Your task to perform on an android device: Open calendar and show me the fourth week of next month Image 0: 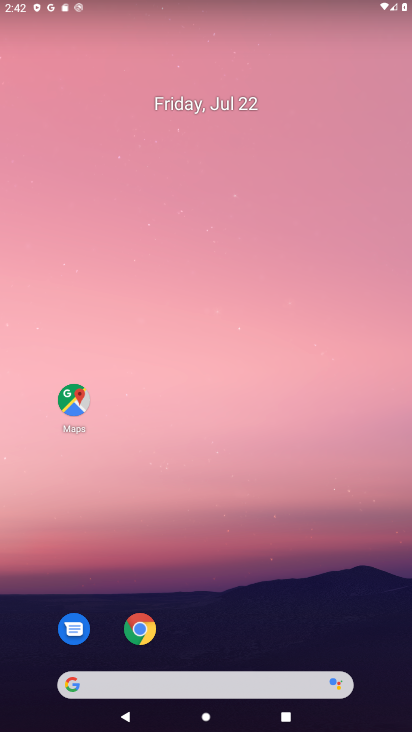
Step 0: drag from (220, 580) to (198, 145)
Your task to perform on an android device: Open calendar and show me the fourth week of next month Image 1: 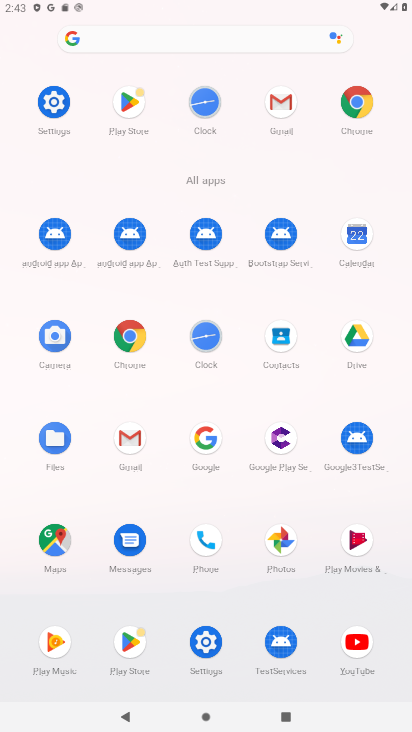
Step 1: click (351, 236)
Your task to perform on an android device: Open calendar and show me the fourth week of next month Image 2: 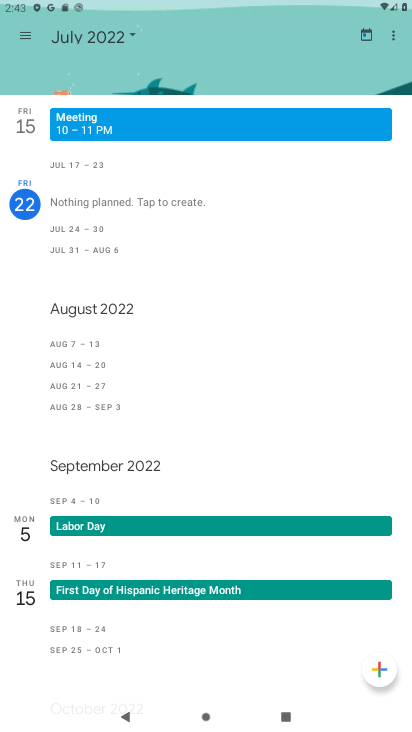
Step 2: click (22, 20)
Your task to perform on an android device: Open calendar and show me the fourth week of next month Image 3: 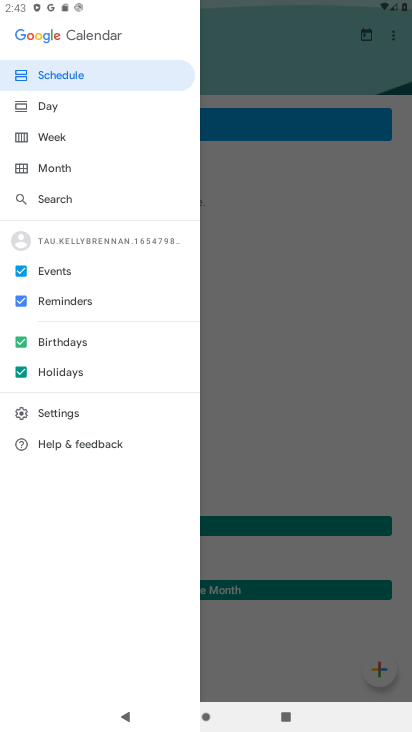
Step 3: click (61, 128)
Your task to perform on an android device: Open calendar and show me the fourth week of next month Image 4: 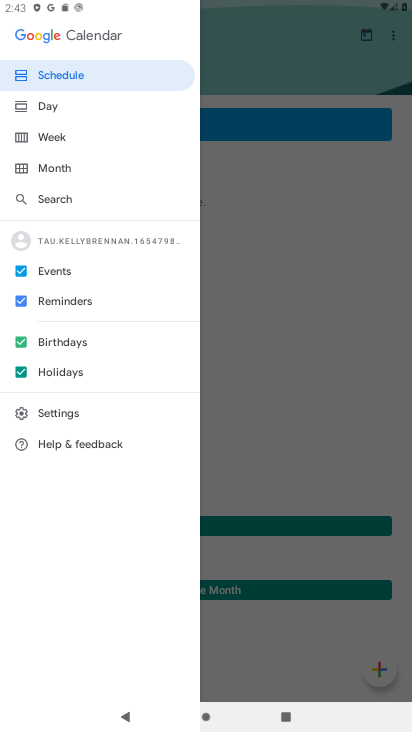
Step 4: click (47, 132)
Your task to perform on an android device: Open calendar and show me the fourth week of next month Image 5: 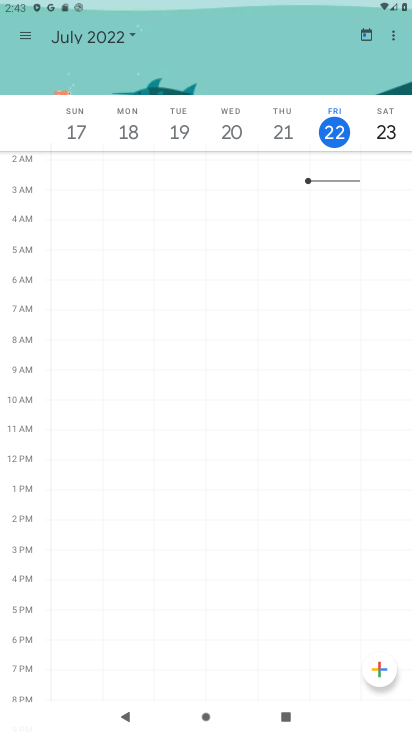
Step 5: click (122, 33)
Your task to perform on an android device: Open calendar and show me the fourth week of next month Image 6: 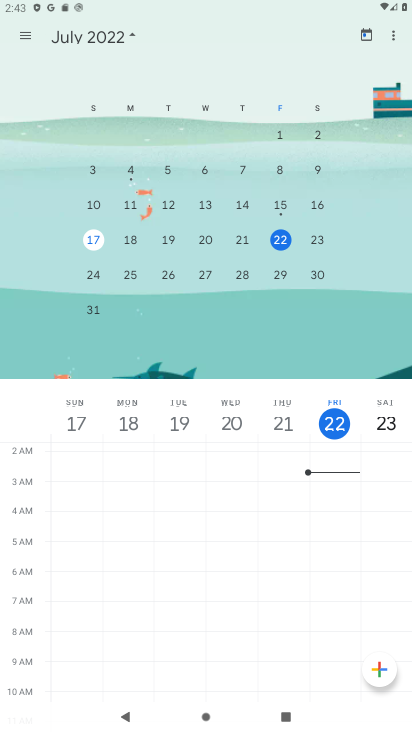
Step 6: drag from (320, 237) to (70, 185)
Your task to perform on an android device: Open calendar and show me the fourth week of next month Image 7: 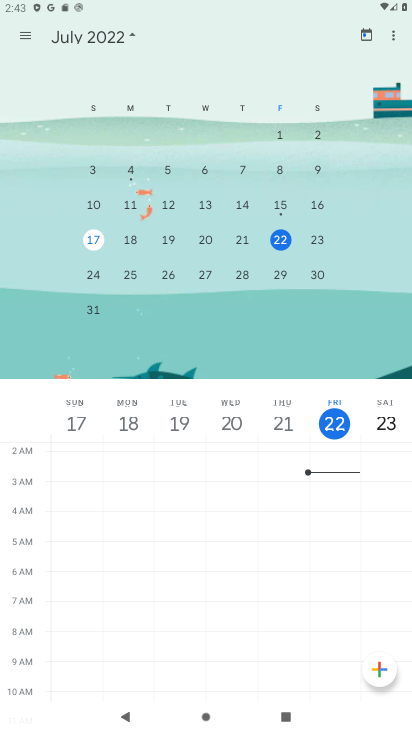
Step 7: drag from (355, 184) to (55, 184)
Your task to perform on an android device: Open calendar and show me the fourth week of next month Image 8: 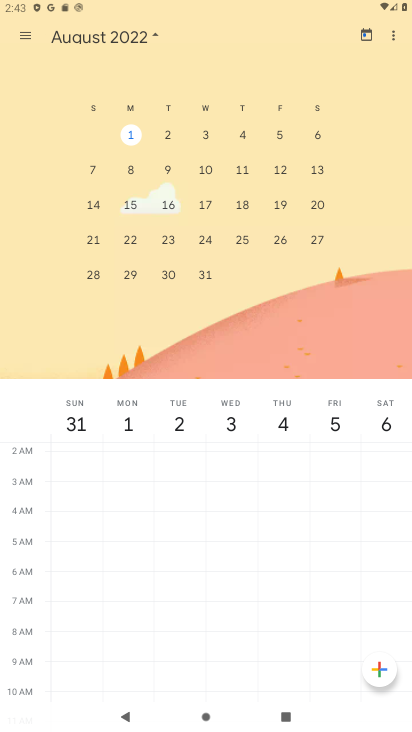
Step 8: click (131, 238)
Your task to perform on an android device: Open calendar and show me the fourth week of next month Image 9: 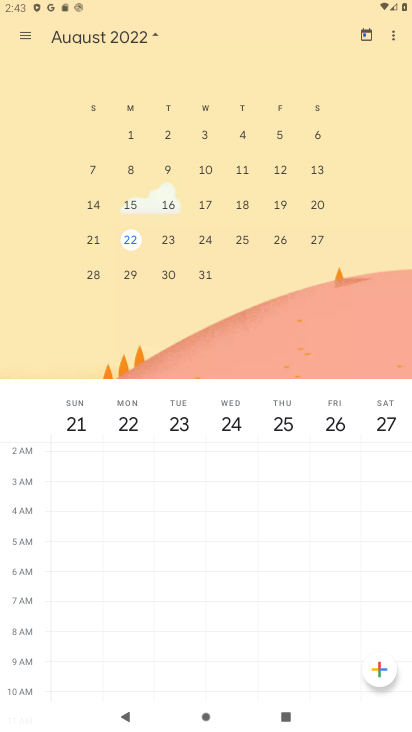
Step 9: task complete